Your task to perform on an android device: Check my gmail Image 0: 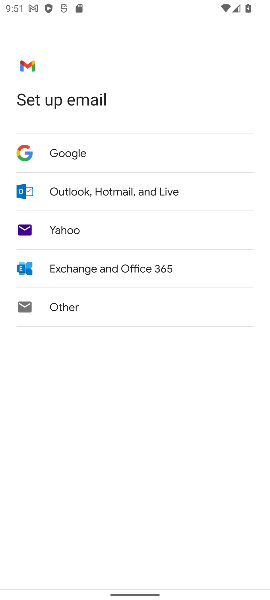
Step 0: press home button
Your task to perform on an android device: Check my gmail Image 1: 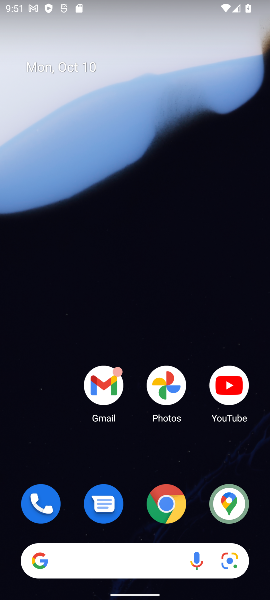
Step 1: click (194, 469)
Your task to perform on an android device: Check my gmail Image 2: 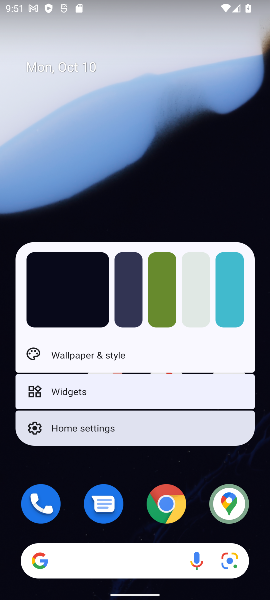
Step 2: click (104, 385)
Your task to perform on an android device: Check my gmail Image 3: 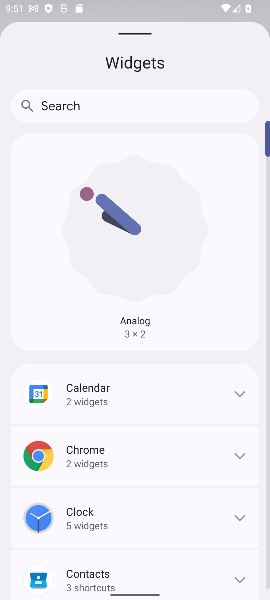
Step 3: press back button
Your task to perform on an android device: Check my gmail Image 4: 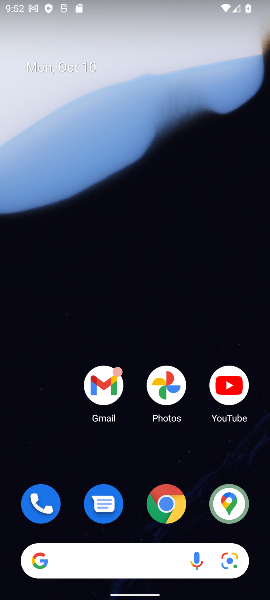
Step 4: click (103, 387)
Your task to perform on an android device: Check my gmail Image 5: 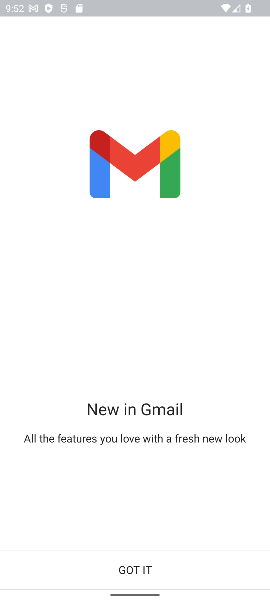
Step 5: click (134, 565)
Your task to perform on an android device: Check my gmail Image 6: 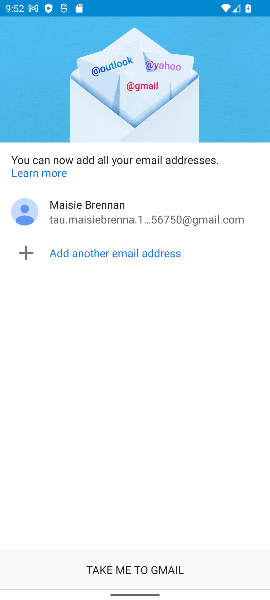
Step 6: click (134, 566)
Your task to perform on an android device: Check my gmail Image 7: 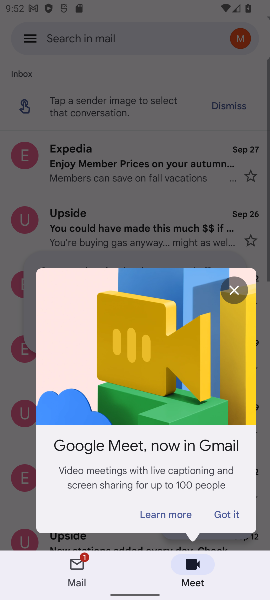
Step 7: click (229, 511)
Your task to perform on an android device: Check my gmail Image 8: 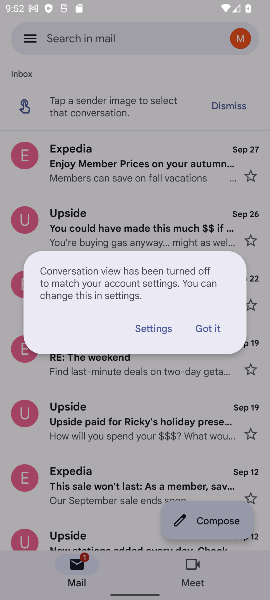
Step 8: click (197, 328)
Your task to perform on an android device: Check my gmail Image 9: 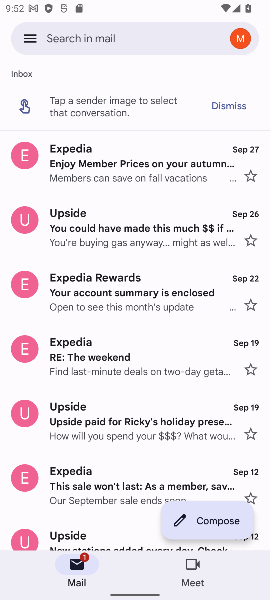
Step 9: task complete